Your task to perform on an android device: Open the map Image 0: 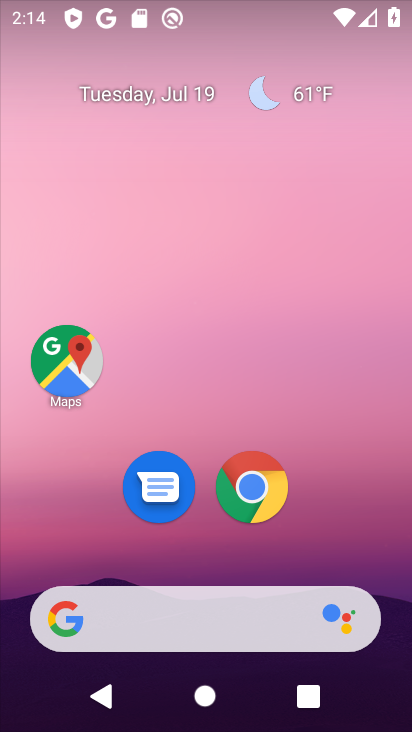
Step 0: click (56, 358)
Your task to perform on an android device: Open the map Image 1: 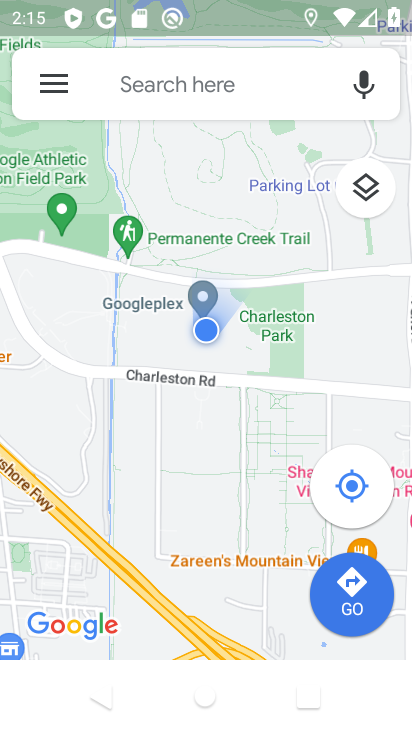
Step 1: task complete